Your task to perform on an android device: move a message to another label in the gmail app Image 0: 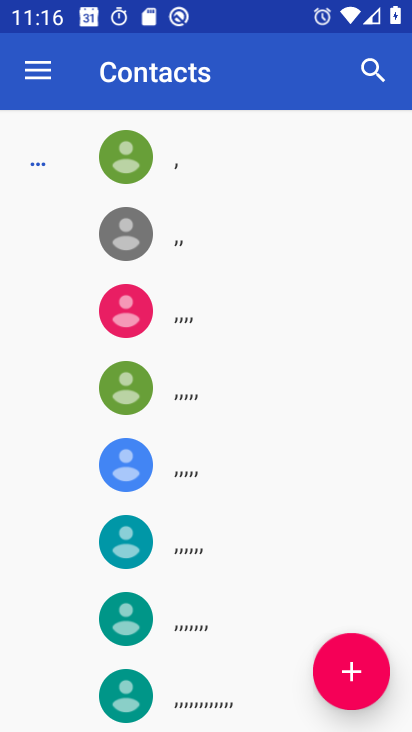
Step 0: press home button
Your task to perform on an android device: move a message to another label in the gmail app Image 1: 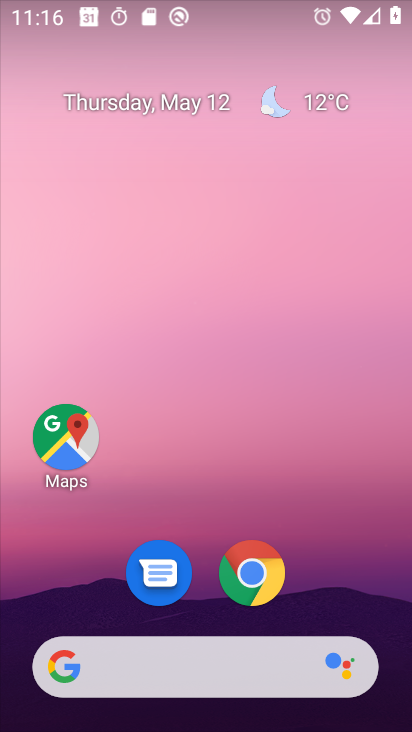
Step 1: drag from (391, 659) to (357, 208)
Your task to perform on an android device: move a message to another label in the gmail app Image 2: 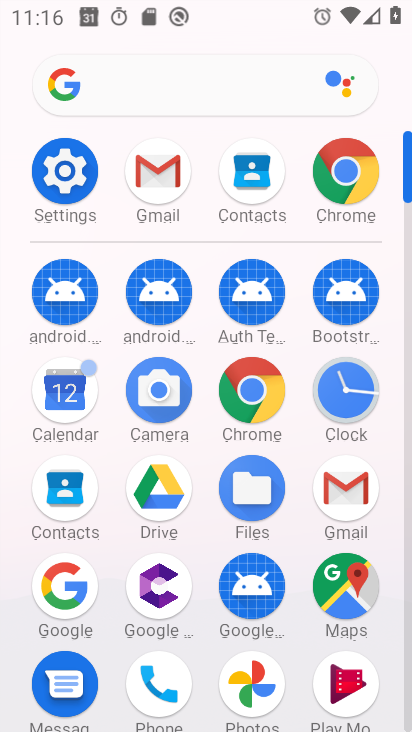
Step 2: click (354, 501)
Your task to perform on an android device: move a message to another label in the gmail app Image 3: 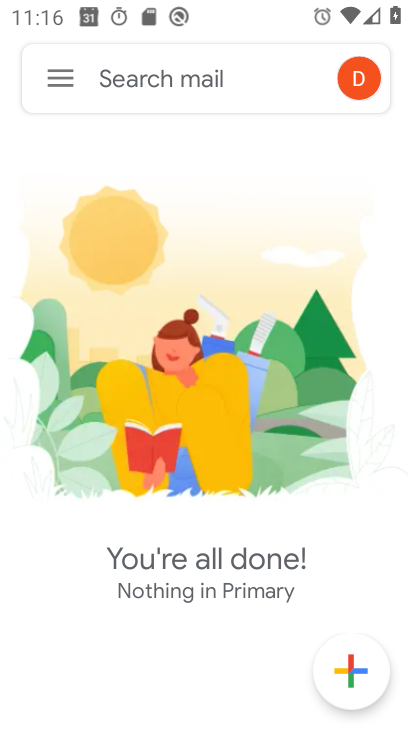
Step 3: click (52, 73)
Your task to perform on an android device: move a message to another label in the gmail app Image 4: 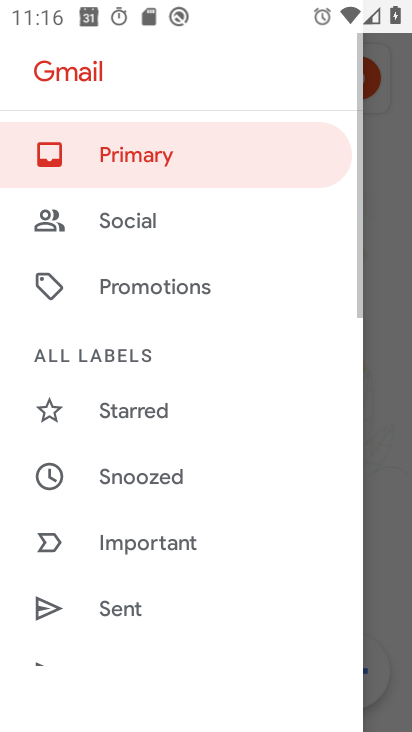
Step 4: click (185, 162)
Your task to perform on an android device: move a message to another label in the gmail app Image 5: 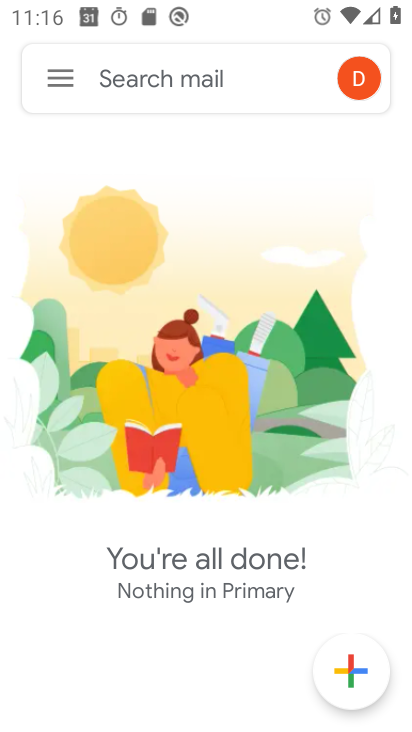
Step 5: task complete